Your task to perform on an android device: turn notification dots on Image 0: 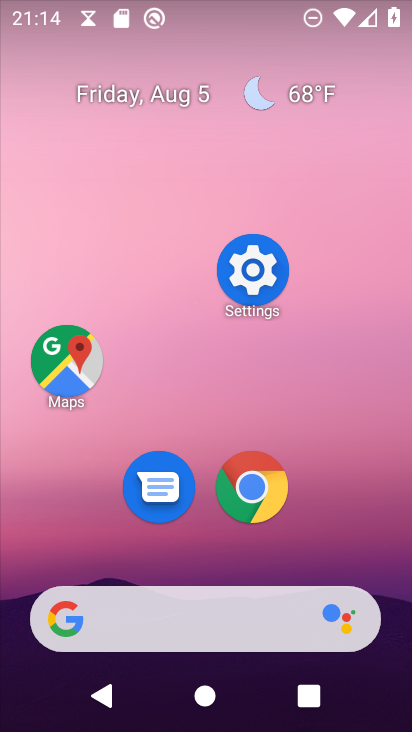
Step 0: click (255, 280)
Your task to perform on an android device: turn notification dots on Image 1: 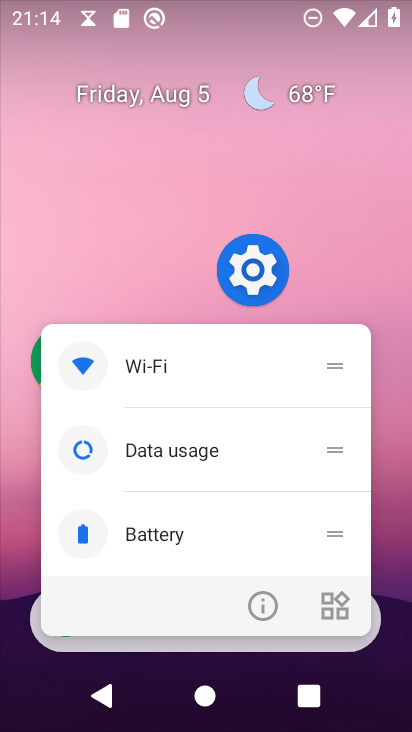
Step 1: click (254, 269)
Your task to perform on an android device: turn notification dots on Image 2: 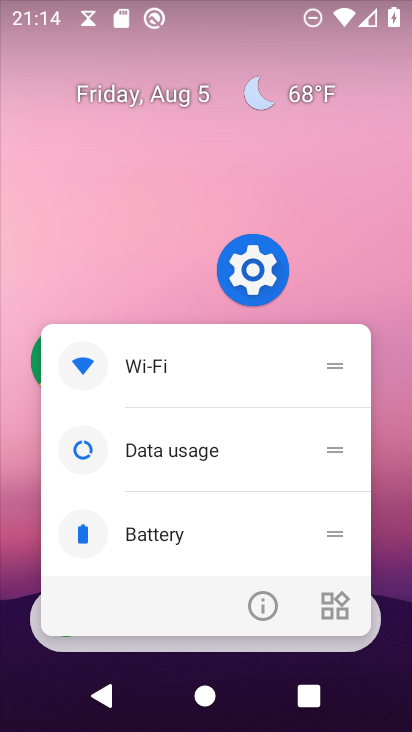
Step 2: click (254, 269)
Your task to perform on an android device: turn notification dots on Image 3: 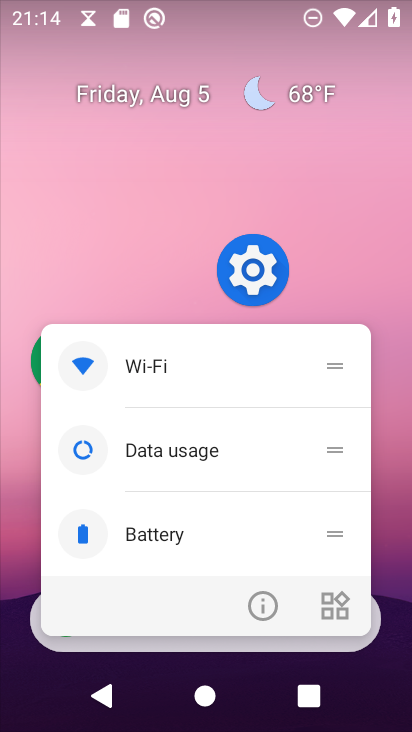
Step 3: click (254, 273)
Your task to perform on an android device: turn notification dots on Image 4: 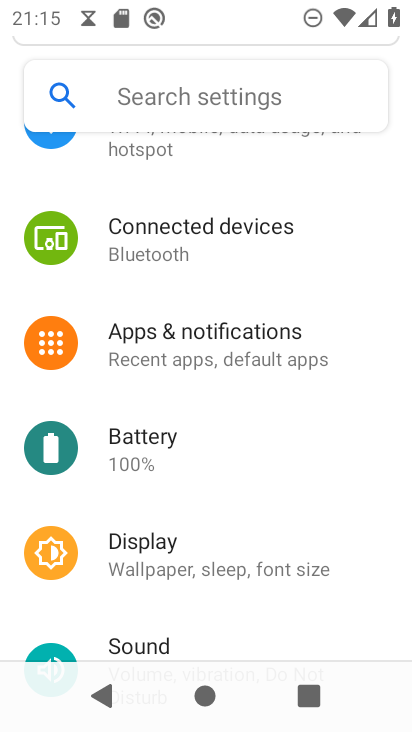
Step 4: click (252, 340)
Your task to perform on an android device: turn notification dots on Image 5: 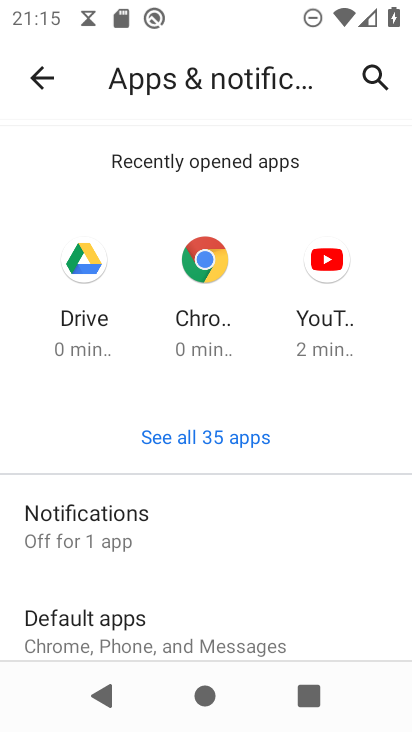
Step 5: click (108, 529)
Your task to perform on an android device: turn notification dots on Image 6: 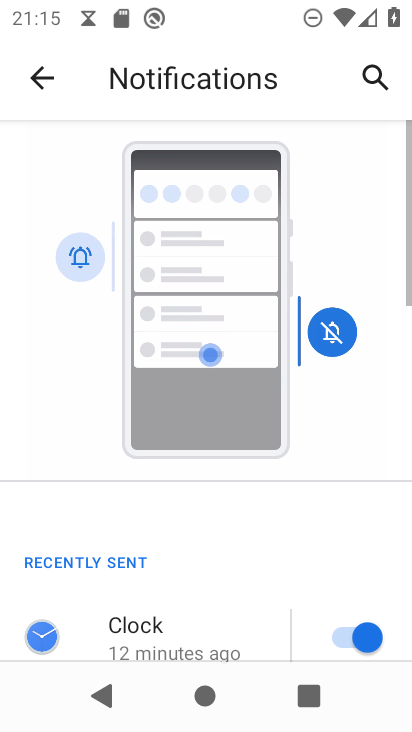
Step 6: drag from (252, 627) to (320, 95)
Your task to perform on an android device: turn notification dots on Image 7: 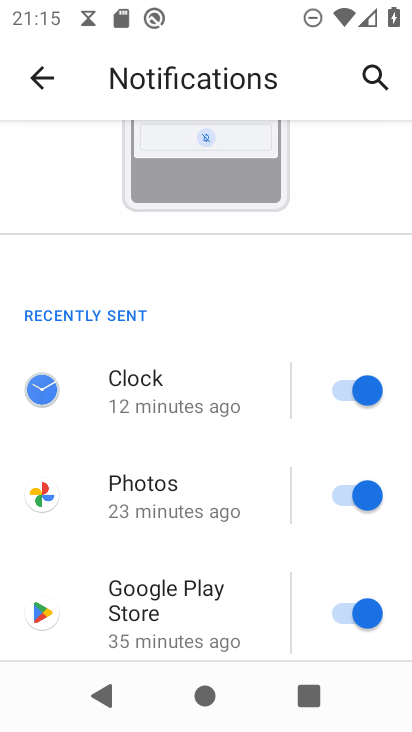
Step 7: drag from (278, 635) to (335, 260)
Your task to perform on an android device: turn notification dots on Image 8: 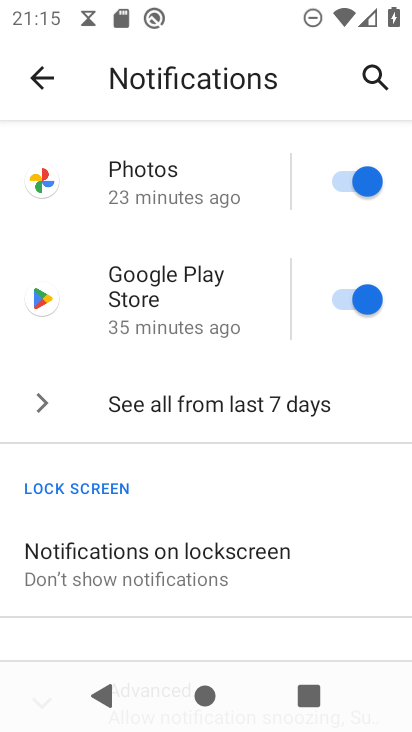
Step 8: drag from (253, 563) to (318, 148)
Your task to perform on an android device: turn notification dots on Image 9: 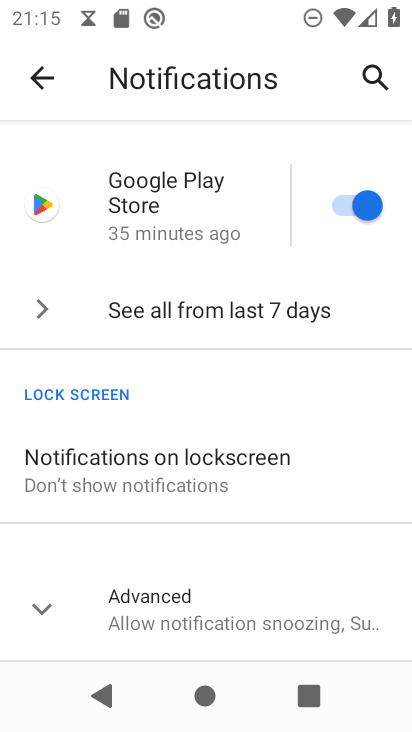
Step 9: click (191, 607)
Your task to perform on an android device: turn notification dots on Image 10: 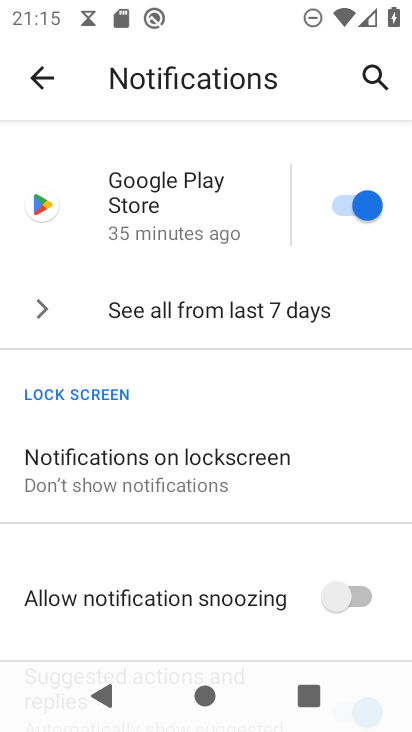
Step 10: task complete